Your task to perform on an android device: turn off notifications in google photos Image 0: 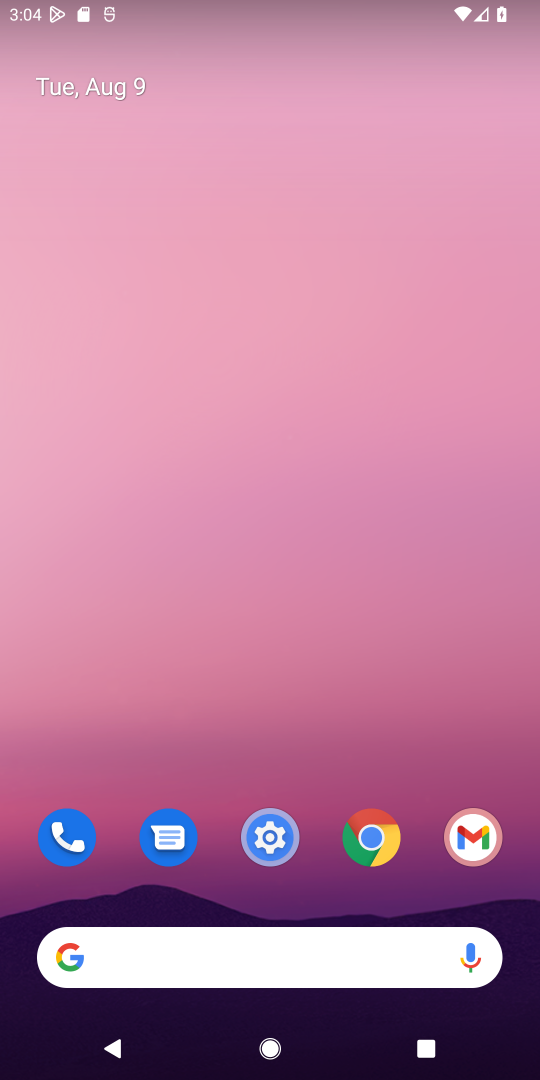
Step 0: drag from (259, 853) to (328, 251)
Your task to perform on an android device: turn off notifications in google photos Image 1: 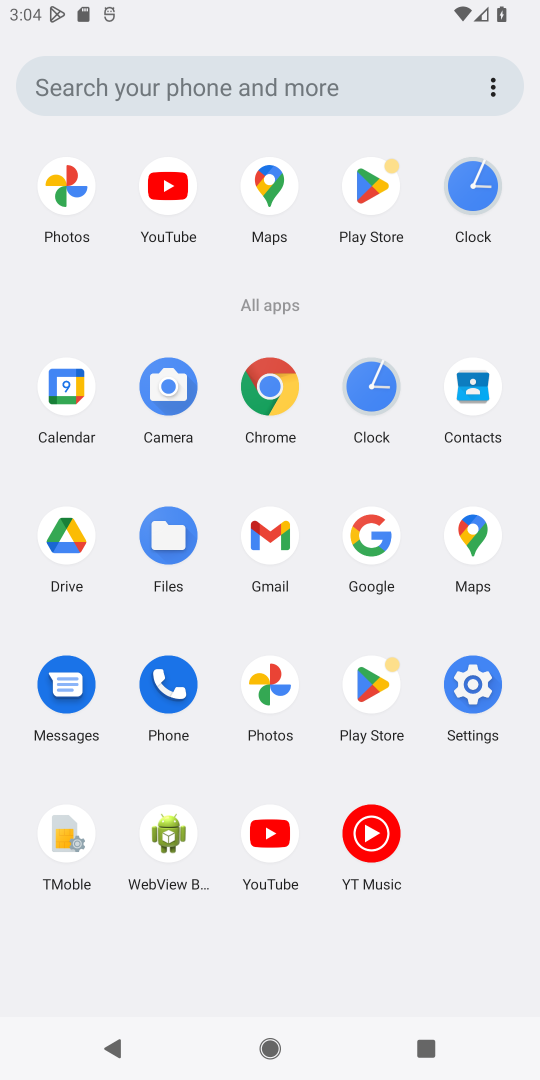
Step 1: click (277, 668)
Your task to perform on an android device: turn off notifications in google photos Image 2: 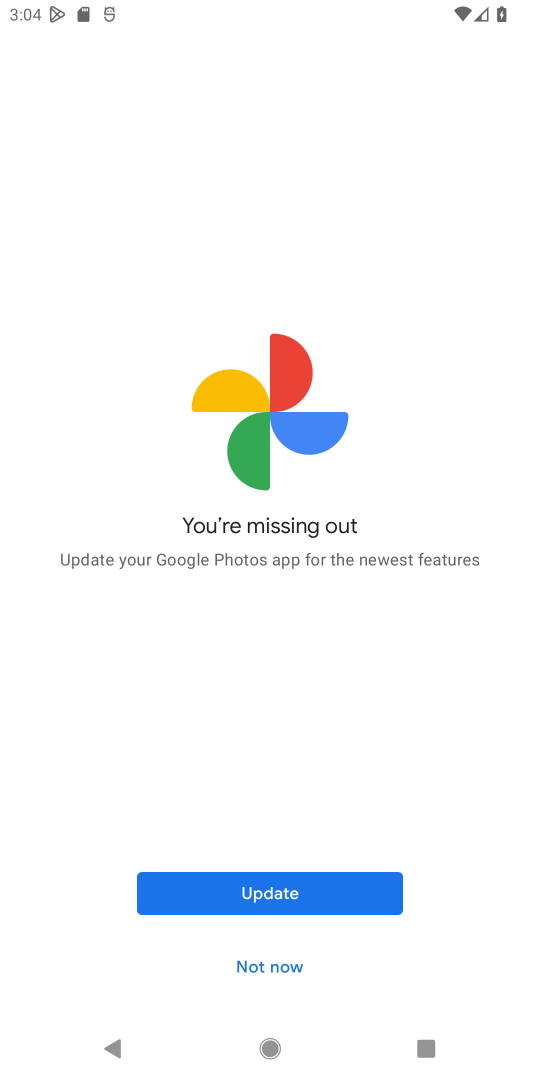
Step 2: click (257, 962)
Your task to perform on an android device: turn off notifications in google photos Image 3: 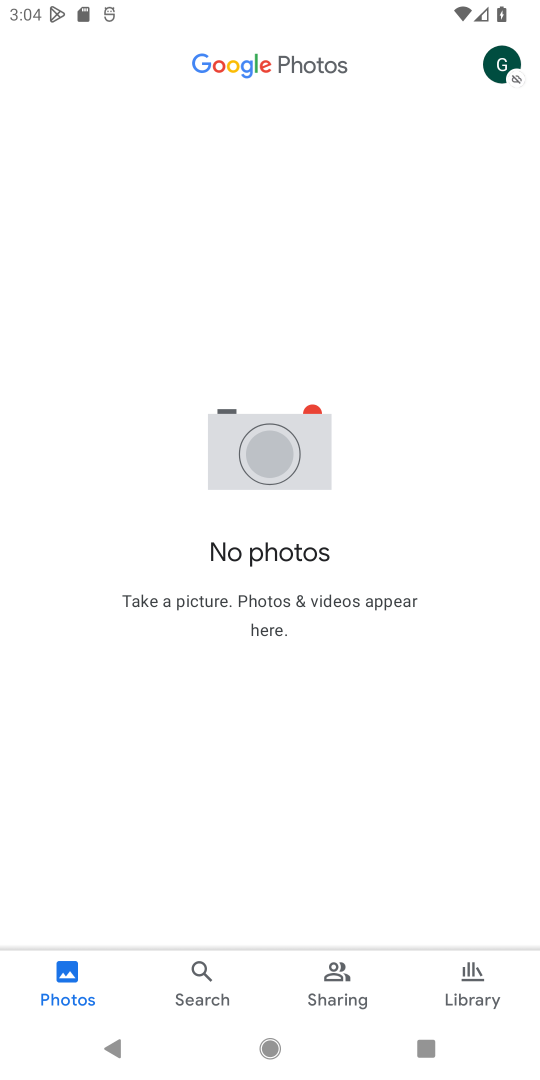
Step 3: click (504, 55)
Your task to perform on an android device: turn off notifications in google photos Image 4: 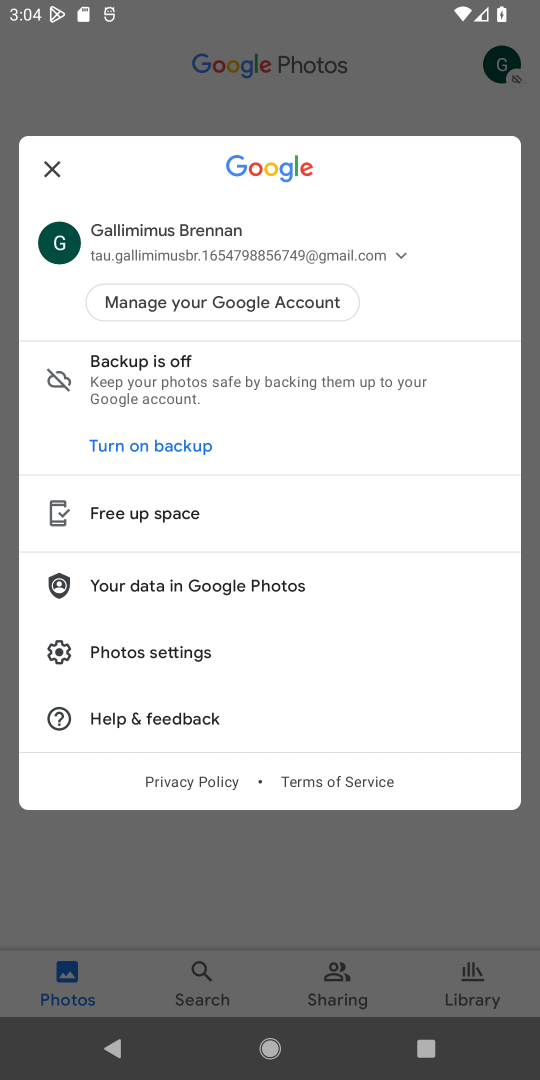
Step 4: click (156, 660)
Your task to perform on an android device: turn off notifications in google photos Image 5: 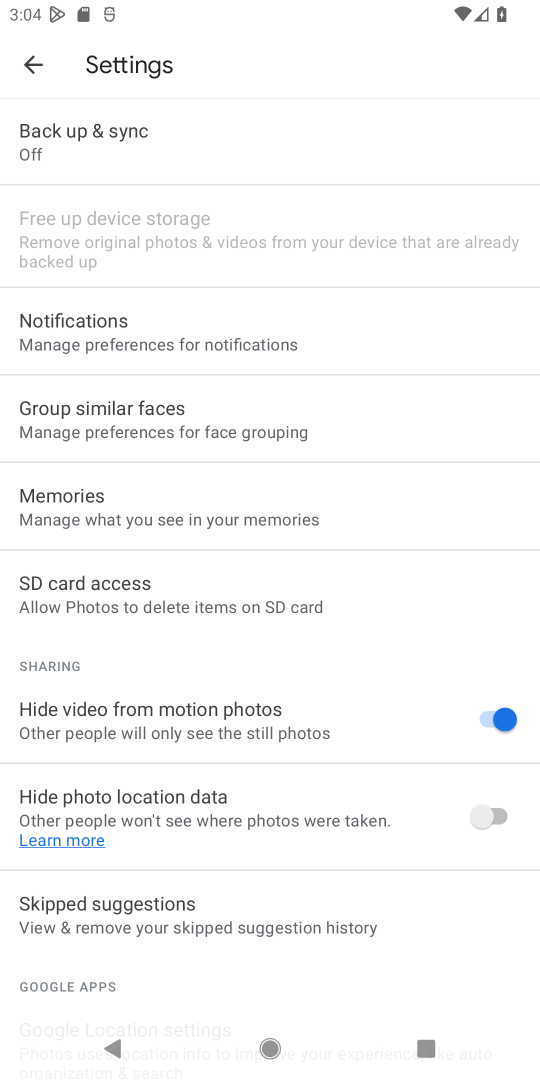
Step 5: click (205, 331)
Your task to perform on an android device: turn off notifications in google photos Image 6: 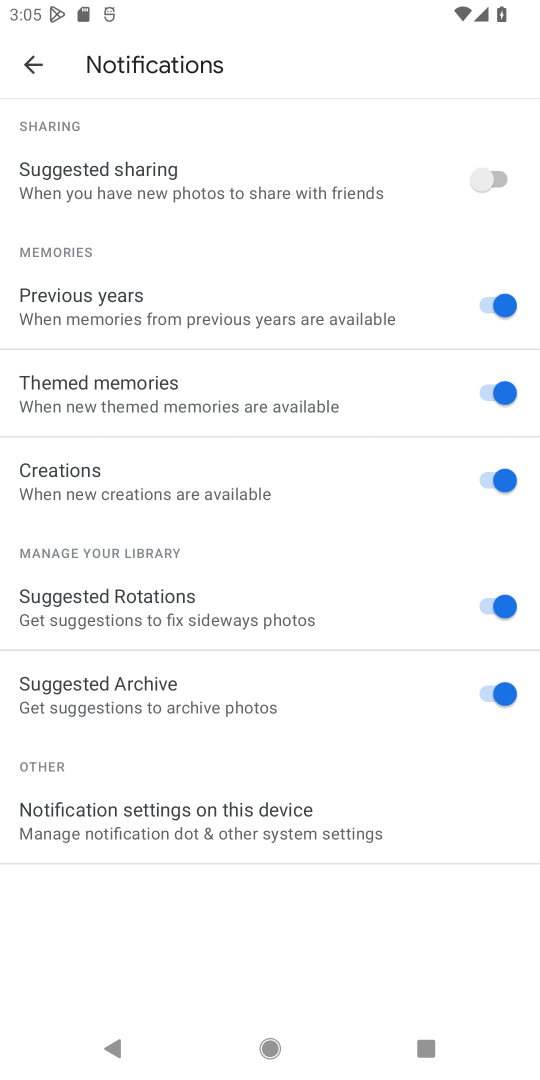
Step 6: click (304, 819)
Your task to perform on an android device: turn off notifications in google photos Image 7: 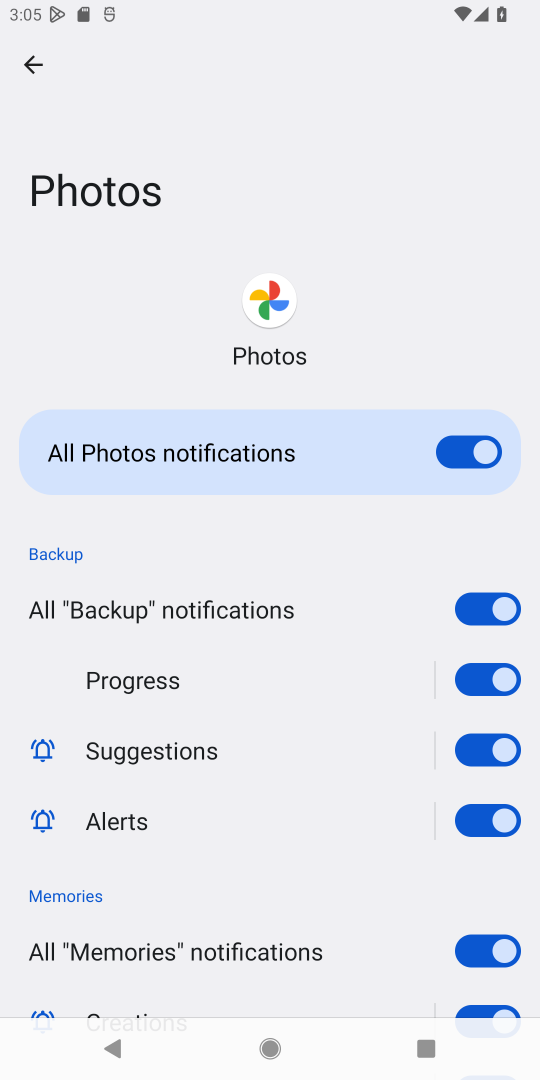
Step 7: click (449, 444)
Your task to perform on an android device: turn off notifications in google photos Image 8: 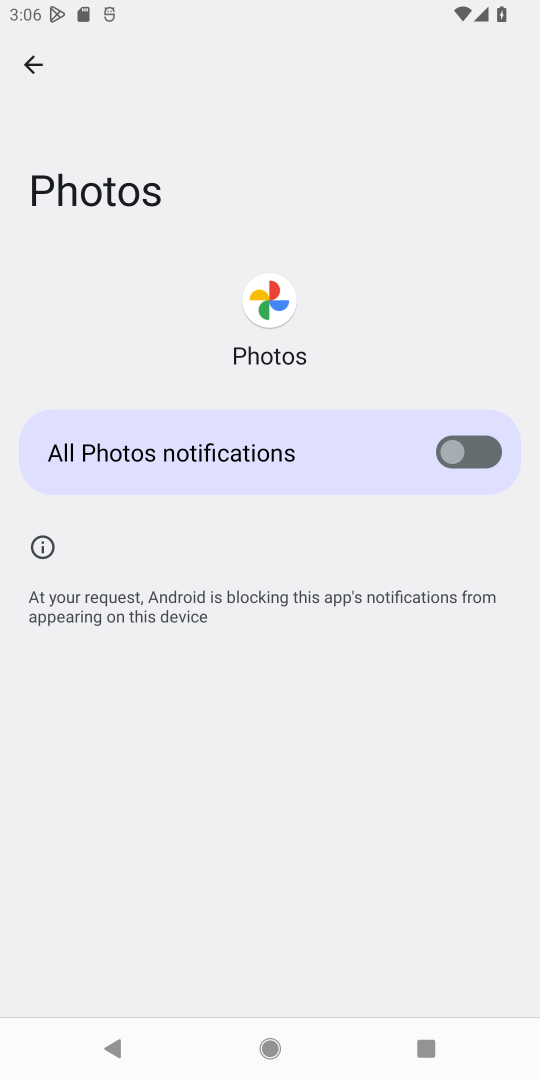
Step 8: task complete